Your task to perform on an android device: Go to Android settings Image 0: 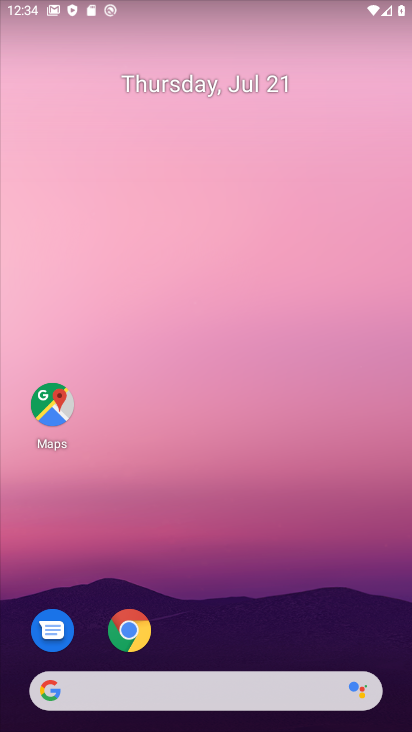
Step 0: drag from (254, 642) to (219, 227)
Your task to perform on an android device: Go to Android settings Image 1: 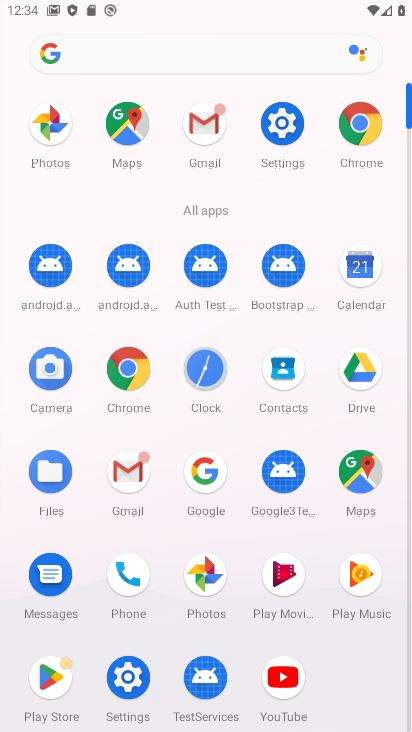
Step 1: click (288, 138)
Your task to perform on an android device: Go to Android settings Image 2: 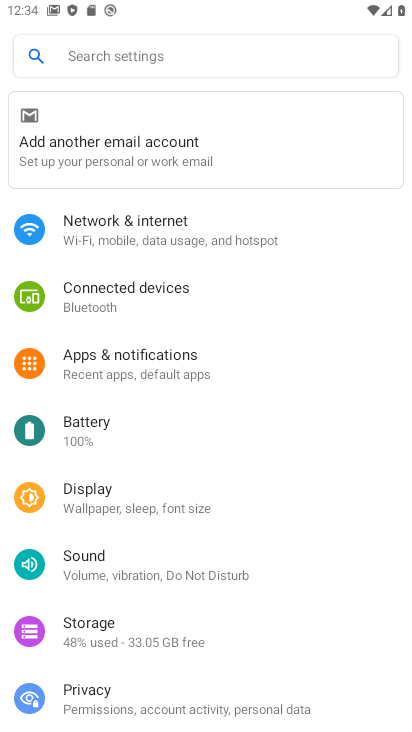
Step 2: task complete